Your task to perform on an android device: When is my next appointment? Image 0: 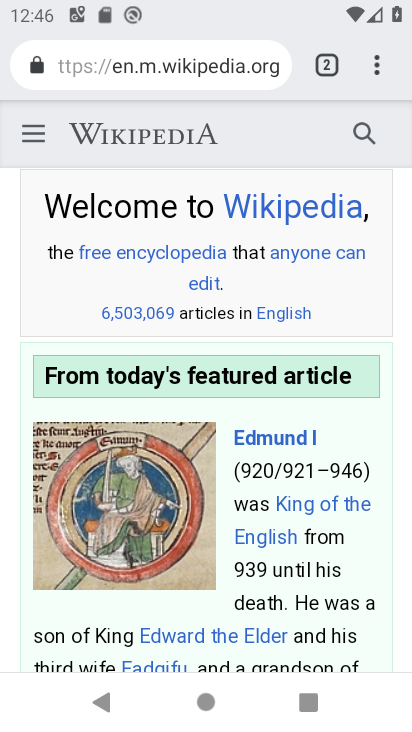
Step 0: press home button
Your task to perform on an android device: When is my next appointment? Image 1: 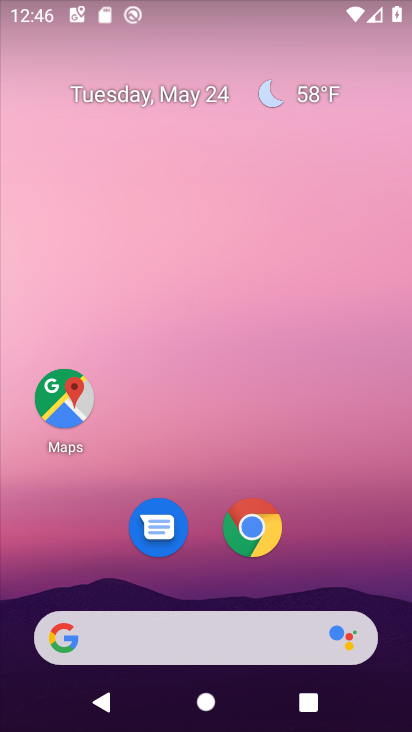
Step 1: drag from (396, 595) to (296, 204)
Your task to perform on an android device: When is my next appointment? Image 2: 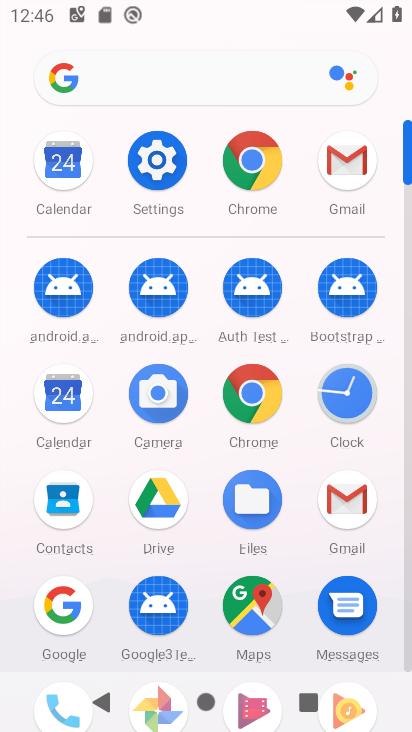
Step 2: click (69, 405)
Your task to perform on an android device: When is my next appointment? Image 3: 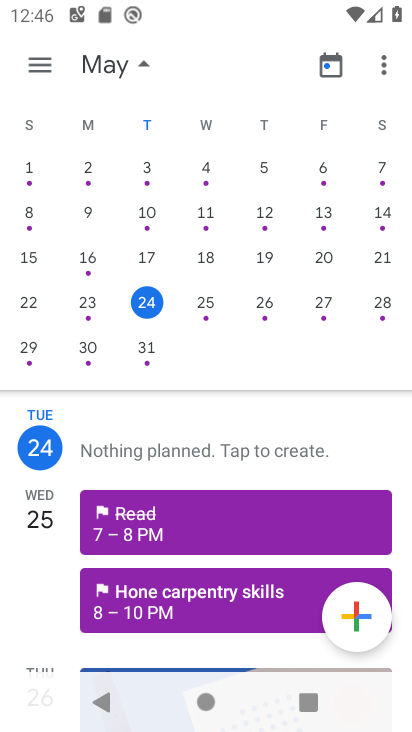
Step 3: click (35, 74)
Your task to perform on an android device: When is my next appointment? Image 4: 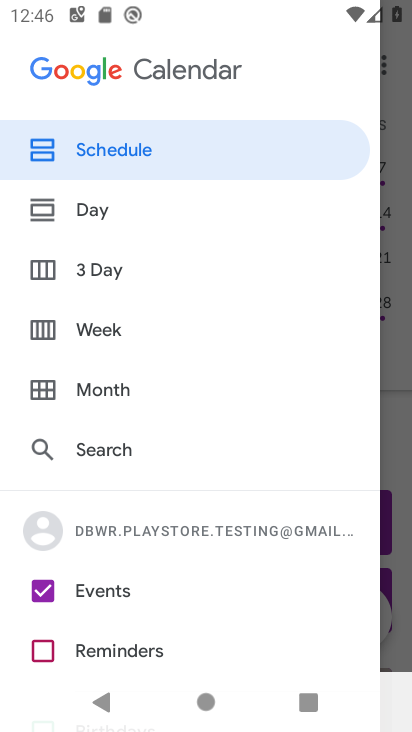
Step 4: click (81, 154)
Your task to perform on an android device: When is my next appointment? Image 5: 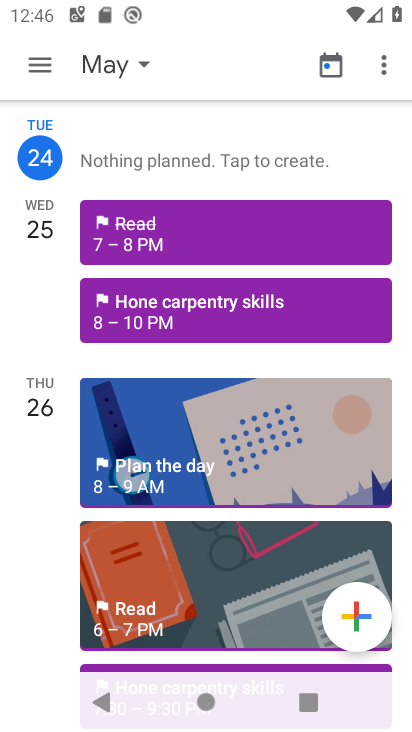
Step 5: task complete